Your task to perform on an android device: Open sound settings Image 0: 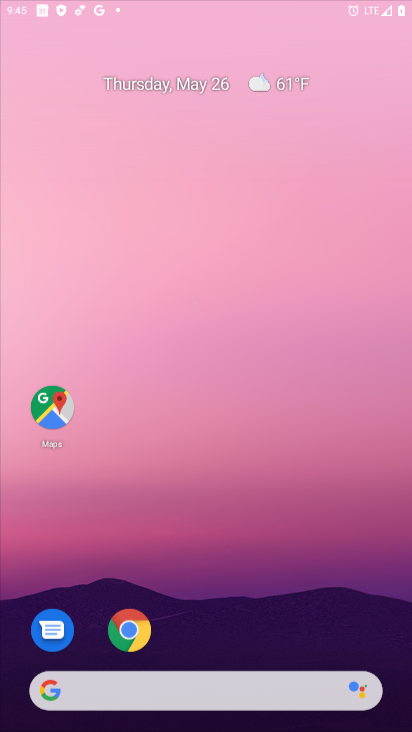
Step 0: click (125, 622)
Your task to perform on an android device: Open sound settings Image 1: 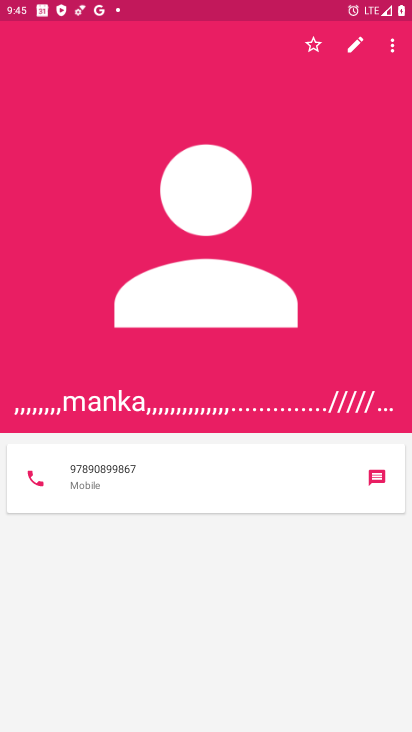
Step 1: press home button
Your task to perform on an android device: Open sound settings Image 2: 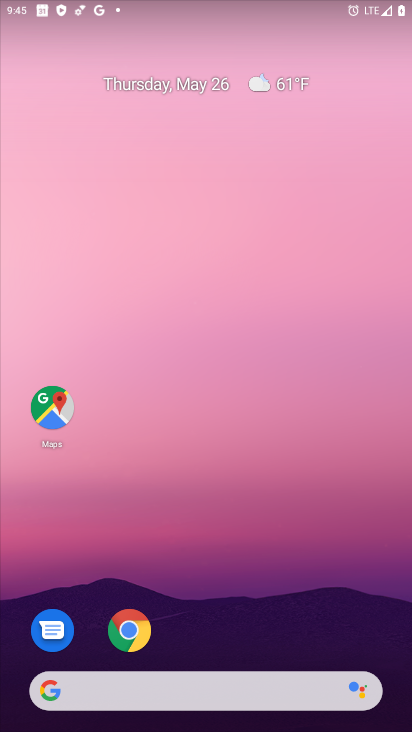
Step 2: drag from (209, 649) to (212, 157)
Your task to perform on an android device: Open sound settings Image 3: 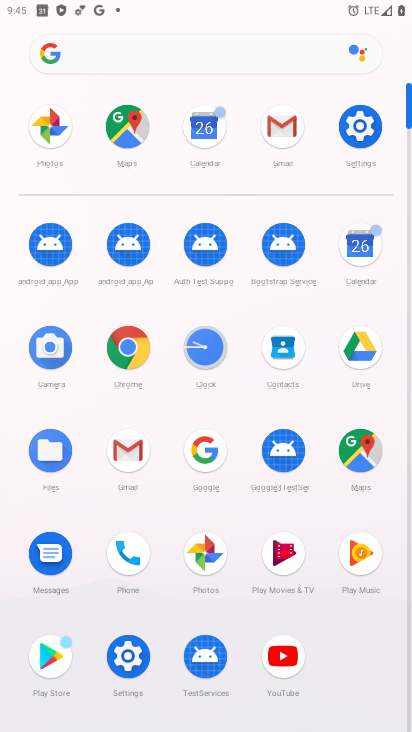
Step 3: click (351, 124)
Your task to perform on an android device: Open sound settings Image 4: 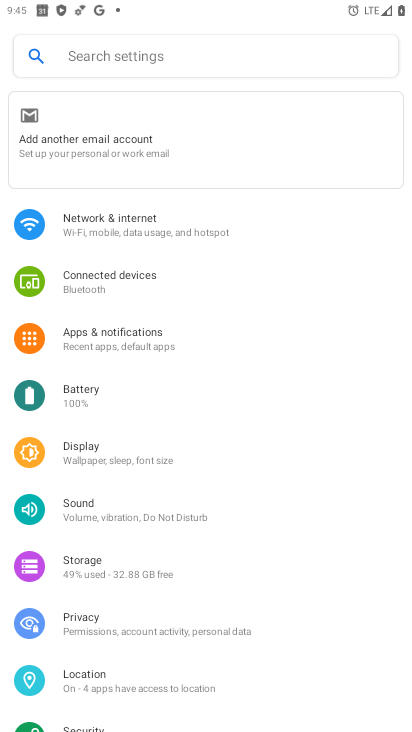
Step 4: click (76, 492)
Your task to perform on an android device: Open sound settings Image 5: 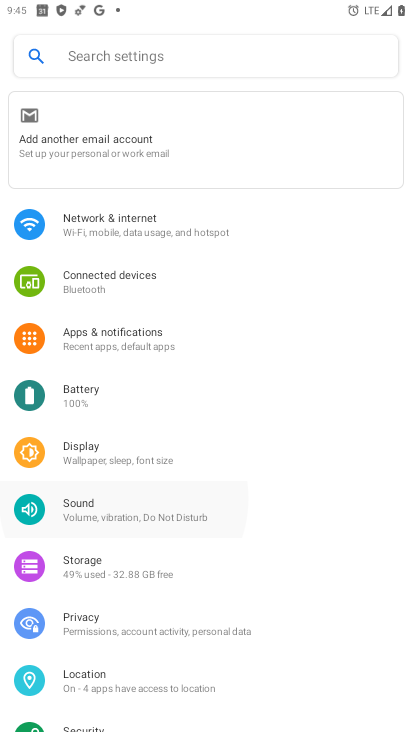
Step 5: click (76, 492)
Your task to perform on an android device: Open sound settings Image 6: 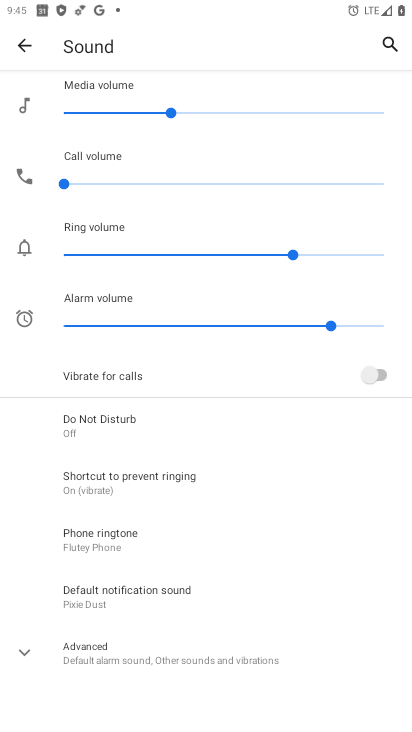
Step 6: click (96, 651)
Your task to perform on an android device: Open sound settings Image 7: 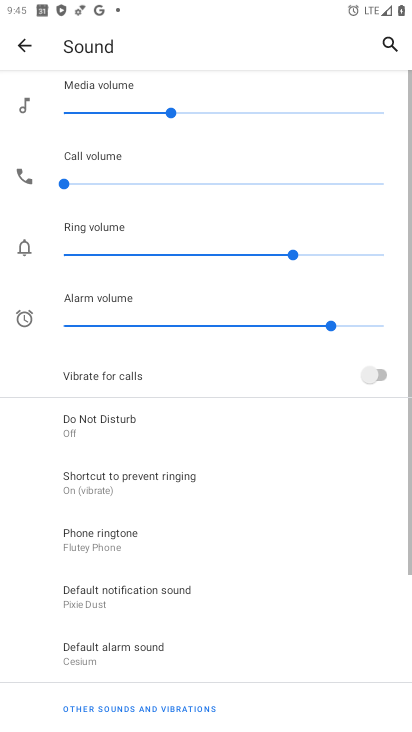
Step 7: task complete